Your task to perform on an android device: turn notification dots off Image 0: 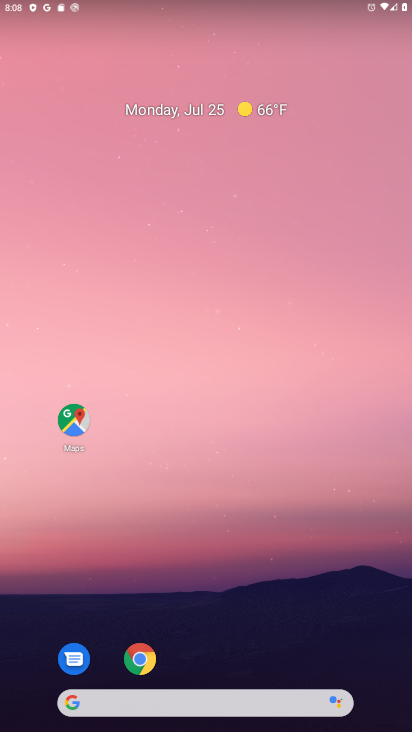
Step 0: drag from (241, 682) to (209, 156)
Your task to perform on an android device: turn notification dots off Image 1: 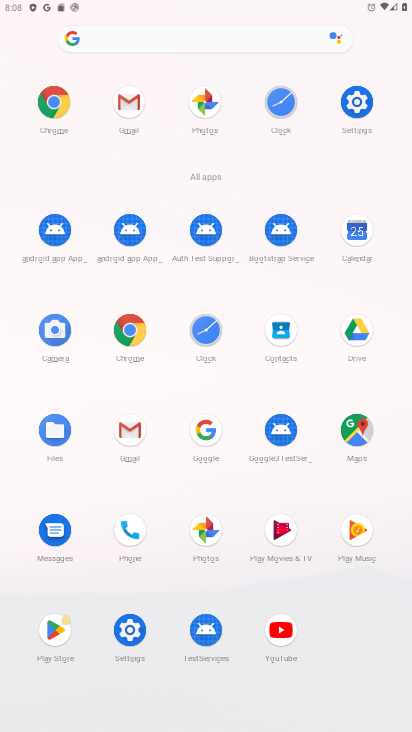
Step 1: click (344, 113)
Your task to perform on an android device: turn notification dots off Image 2: 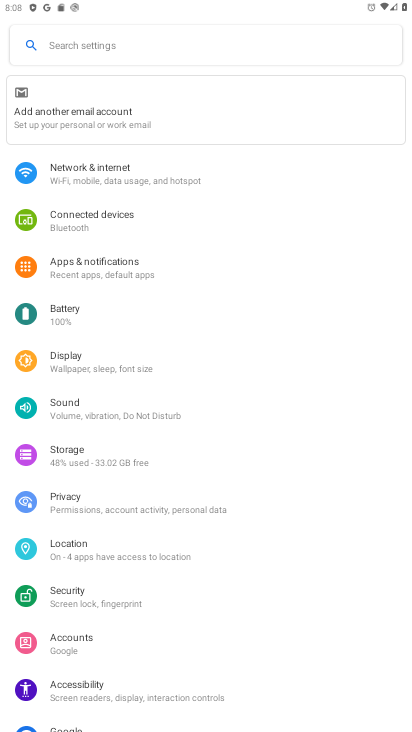
Step 2: click (105, 278)
Your task to perform on an android device: turn notification dots off Image 3: 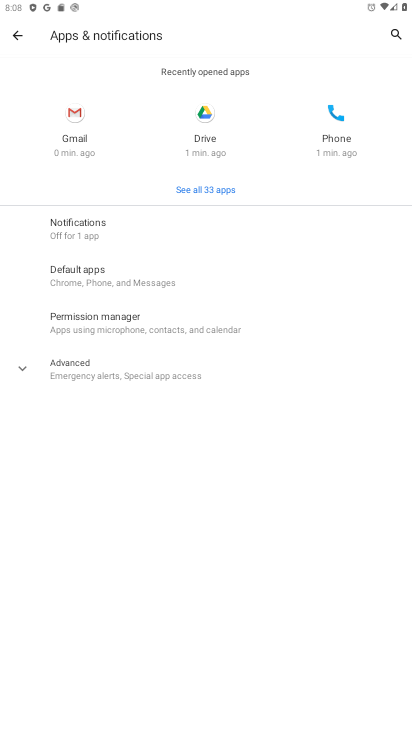
Step 3: click (117, 235)
Your task to perform on an android device: turn notification dots off Image 4: 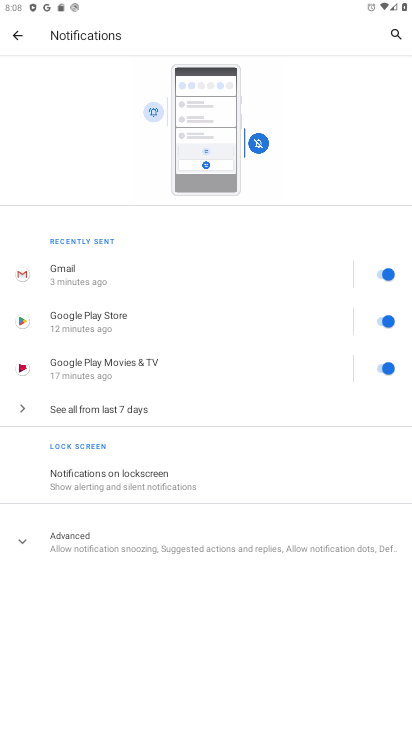
Step 4: click (93, 537)
Your task to perform on an android device: turn notification dots off Image 5: 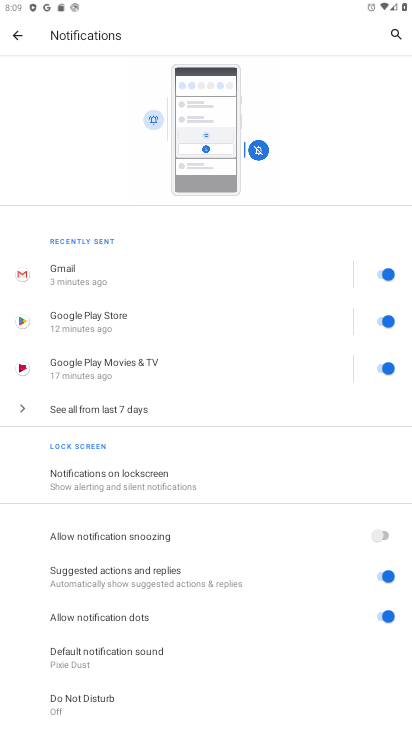
Step 5: click (376, 613)
Your task to perform on an android device: turn notification dots off Image 6: 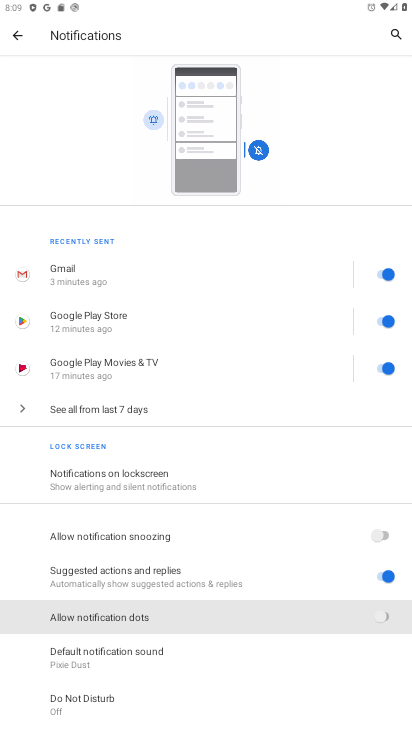
Step 6: click (376, 613)
Your task to perform on an android device: turn notification dots off Image 7: 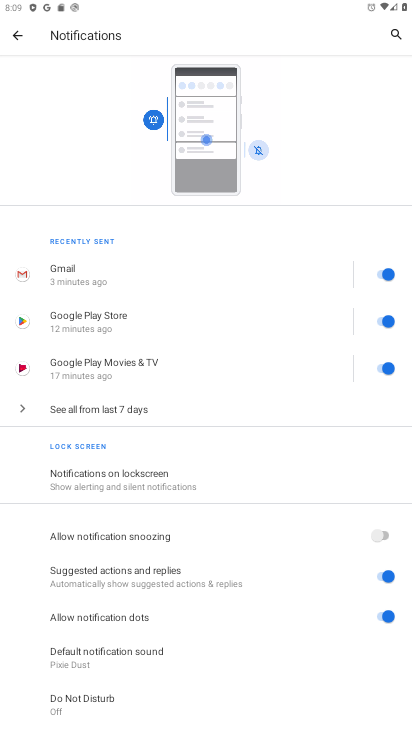
Step 7: press home button
Your task to perform on an android device: turn notification dots off Image 8: 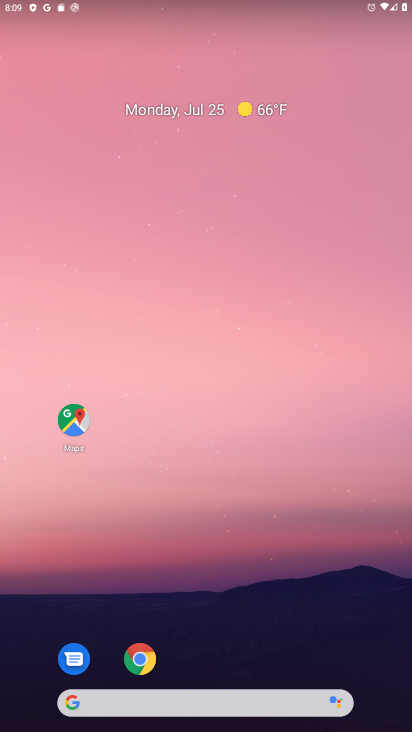
Step 8: drag from (264, 683) to (158, 187)
Your task to perform on an android device: turn notification dots off Image 9: 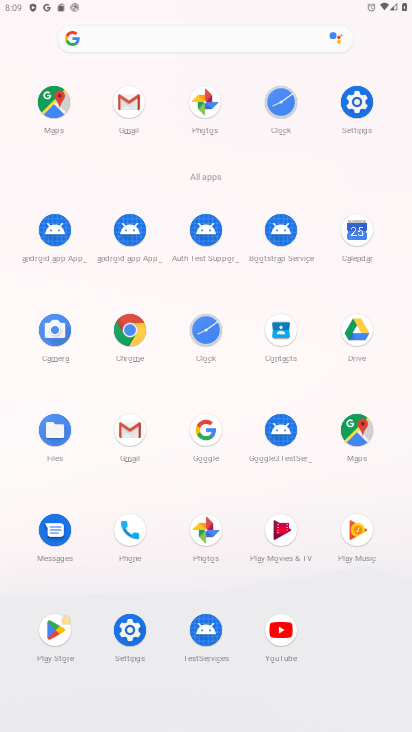
Step 9: click (357, 119)
Your task to perform on an android device: turn notification dots off Image 10: 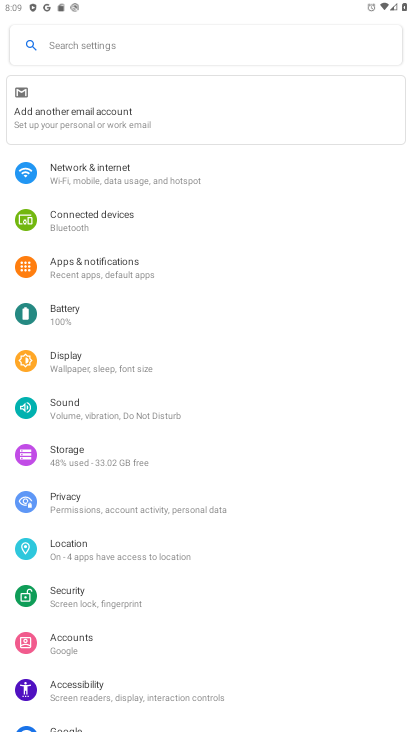
Step 10: click (156, 266)
Your task to perform on an android device: turn notification dots off Image 11: 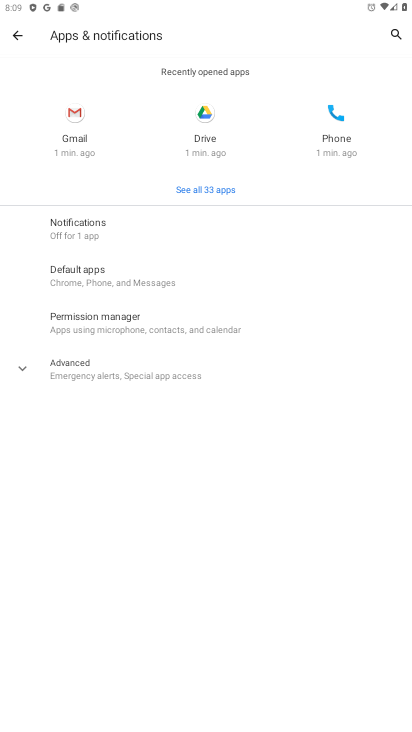
Step 11: click (97, 214)
Your task to perform on an android device: turn notification dots off Image 12: 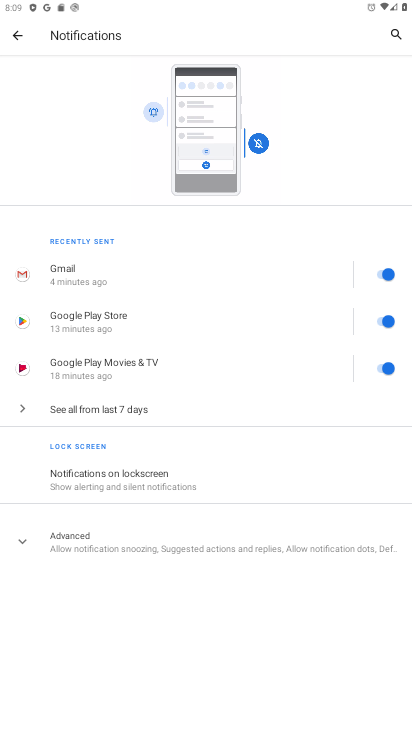
Step 12: click (125, 555)
Your task to perform on an android device: turn notification dots off Image 13: 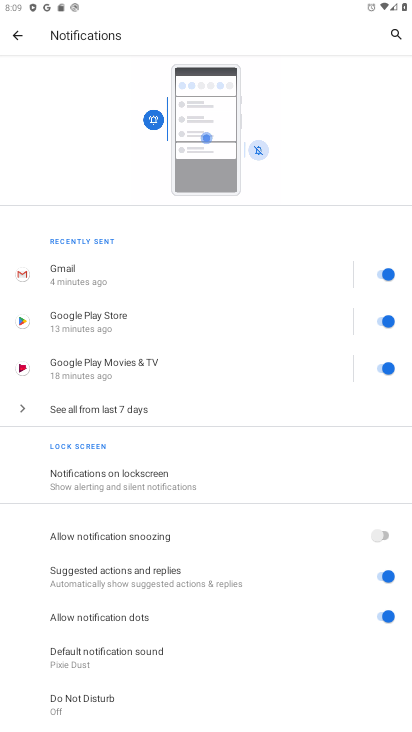
Step 13: click (381, 616)
Your task to perform on an android device: turn notification dots off Image 14: 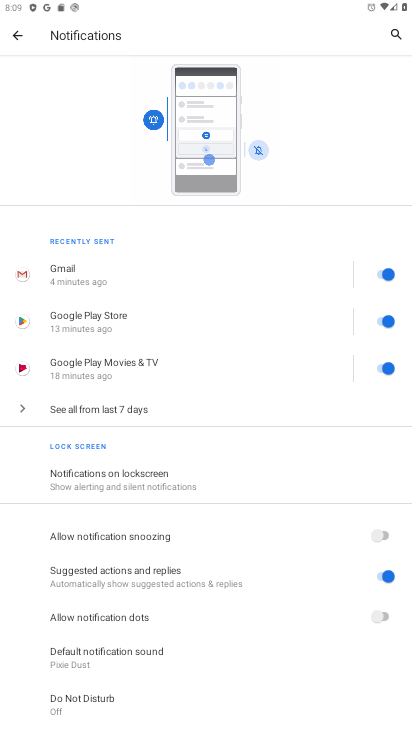
Step 14: task complete